Your task to perform on an android device: Open network settings Image 0: 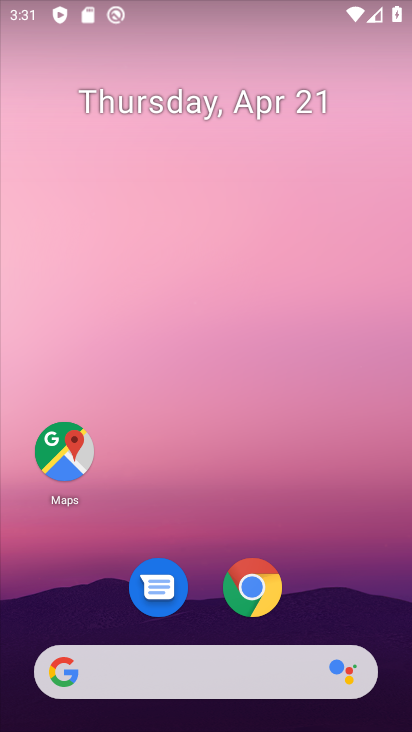
Step 0: drag from (385, 627) to (379, 4)
Your task to perform on an android device: Open network settings Image 1: 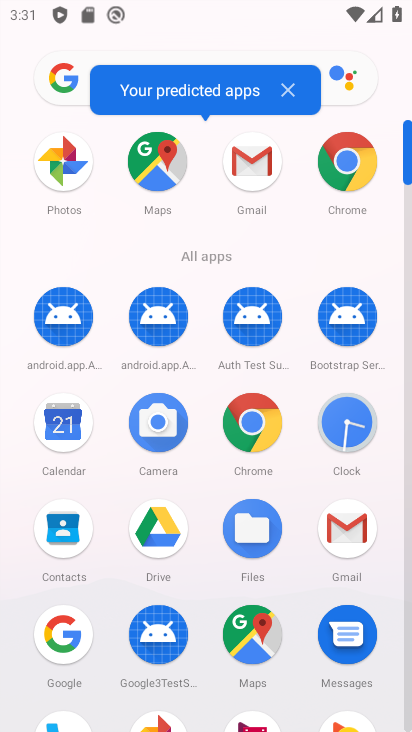
Step 1: click (406, 563)
Your task to perform on an android device: Open network settings Image 2: 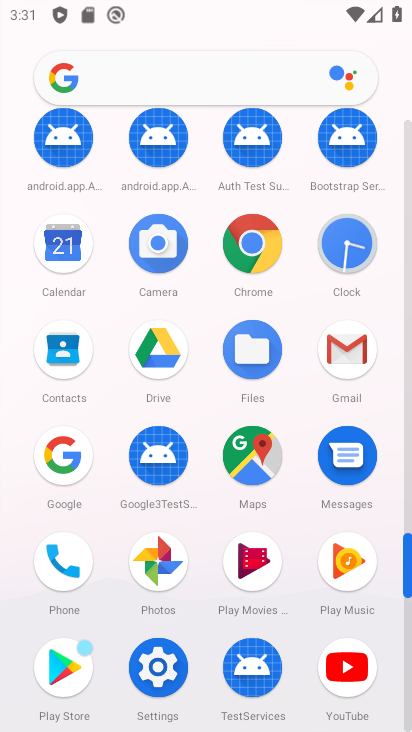
Step 2: click (157, 671)
Your task to perform on an android device: Open network settings Image 3: 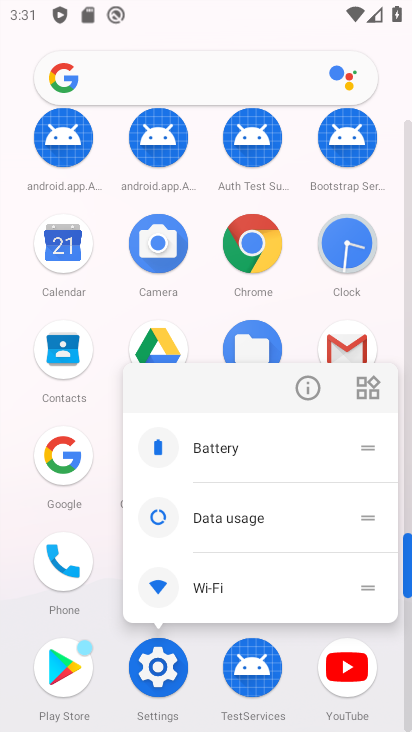
Step 3: click (157, 671)
Your task to perform on an android device: Open network settings Image 4: 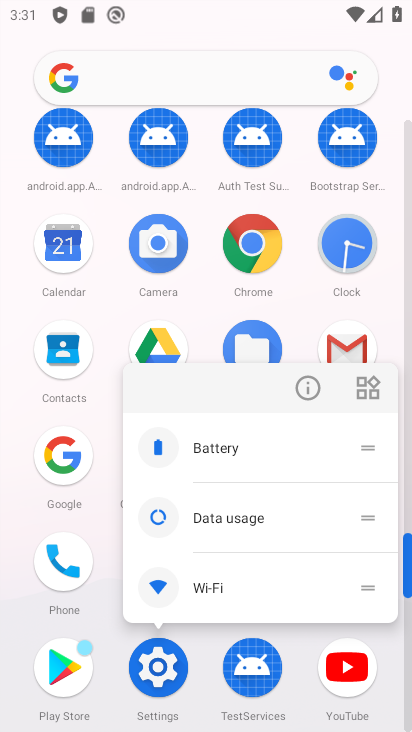
Step 4: click (157, 671)
Your task to perform on an android device: Open network settings Image 5: 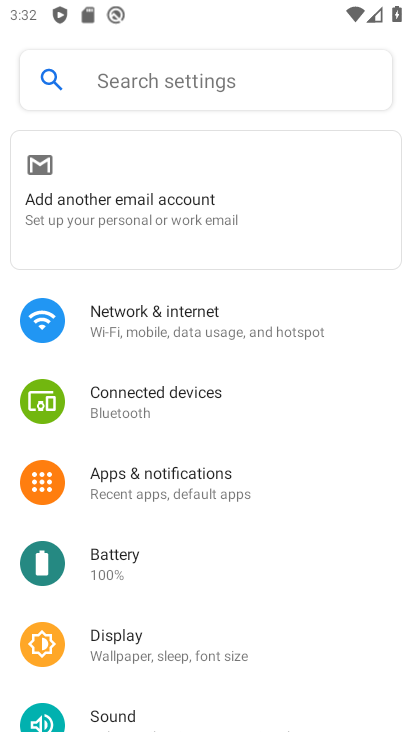
Step 5: click (165, 333)
Your task to perform on an android device: Open network settings Image 6: 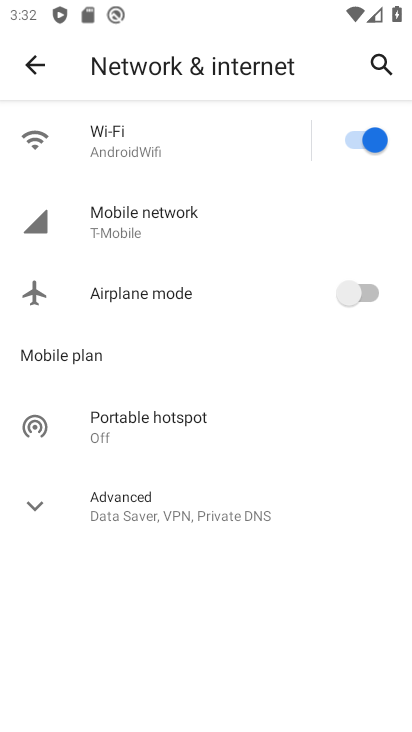
Step 6: click (140, 228)
Your task to perform on an android device: Open network settings Image 7: 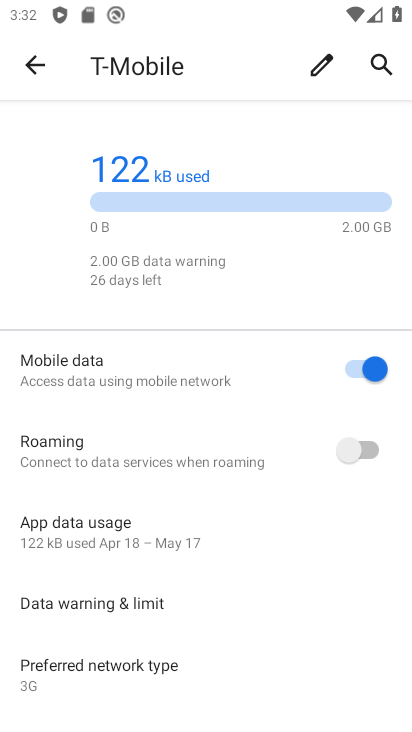
Step 7: drag from (241, 547) to (200, 226)
Your task to perform on an android device: Open network settings Image 8: 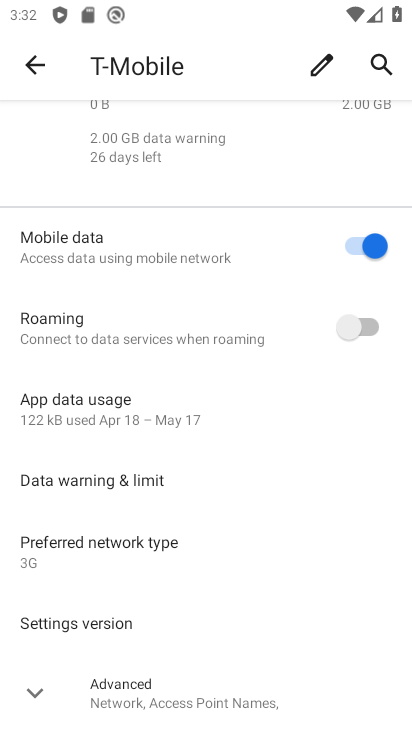
Step 8: click (36, 696)
Your task to perform on an android device: Open network settings Image 9: 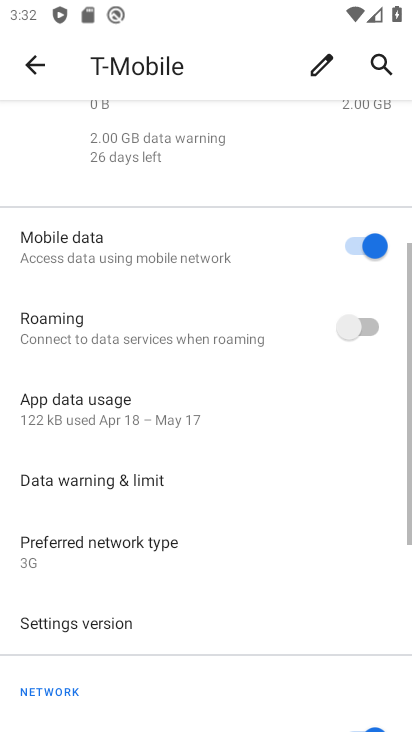
Step 9: task complete